Your task to perform on an android device: turn off priority inbox in the gmail app Image 0: 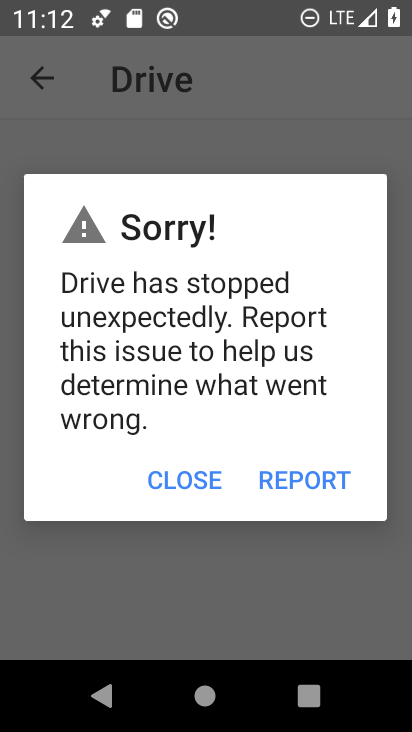
Step 0: press home button
Your task to perform on an android device: turn off priority inbox in the gmail app Image 1: 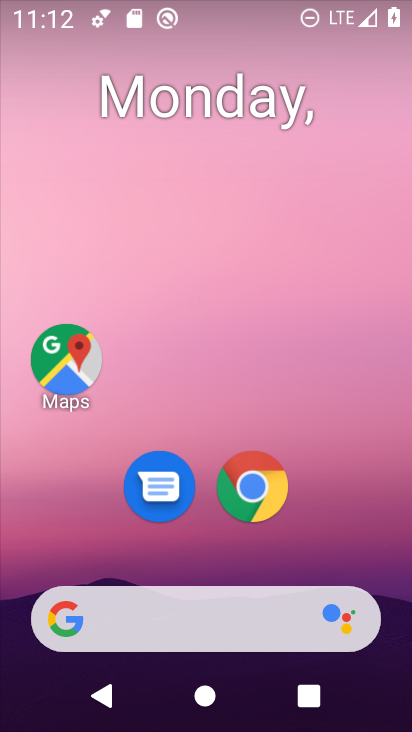
Step 1: drag from (20, 620) to (248, 217)
Your task to perform on an android device: turn off priority inbox in the gmail app Image 2: 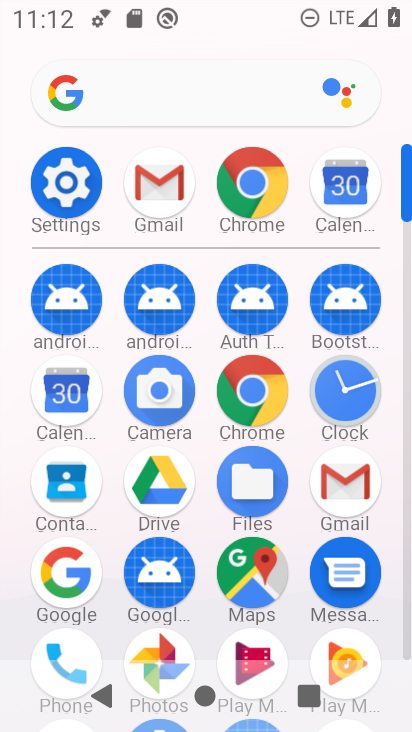
Step 2: click (136, 183)
Your task to perform on an android device: turn off priority inbox in the gmail app Image 3: 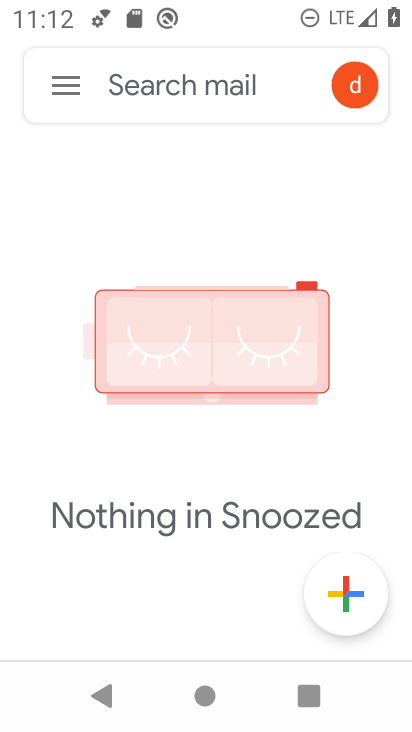
Step 3: click (77, 92)
Your task to perform on an android device: turn off priority inbox in the gmail app Image 4: 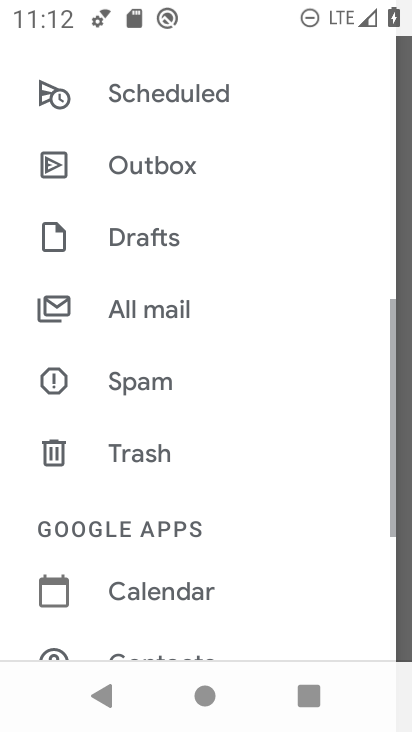
Step 4: drag from (92, 602) to (280, 135)
Your task to perform on an android device: turn off priority inbox in the gmail app Image 5: 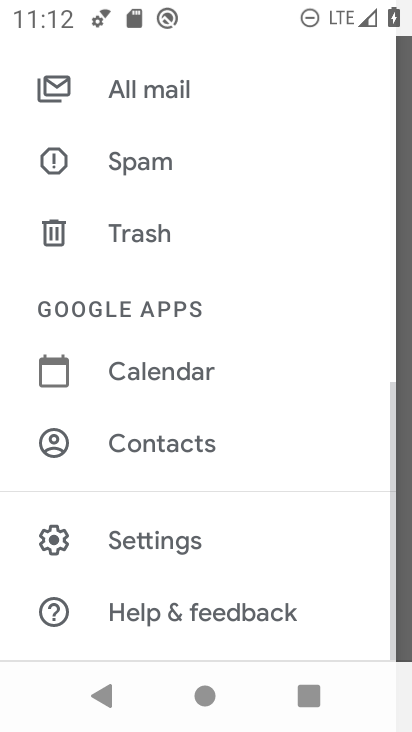
Step 5: click (136, 546)
Your task to perform on an android device: turn off priority inbox in the gmail app Image 6: 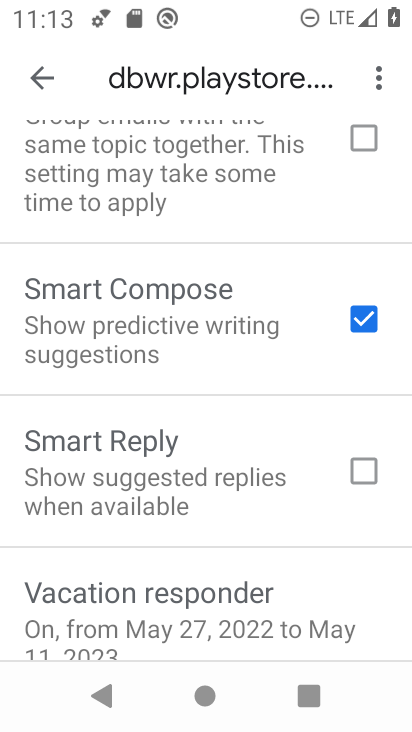
Step 6: drag from (22, 623) to (279, 250)
Your task to perform on an android device: turn off priority inbox in the gmail app Image 7: 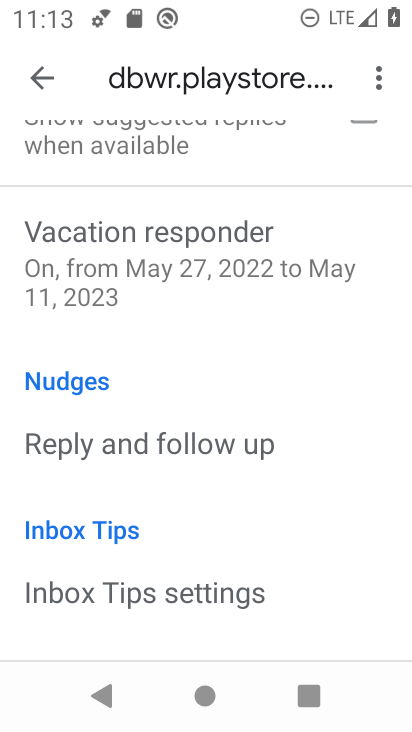
Step 7: drag from (151, 235) to (58, 574)
Your task to perform on an android device: turn off priority inbox in the gmail app Image 8: 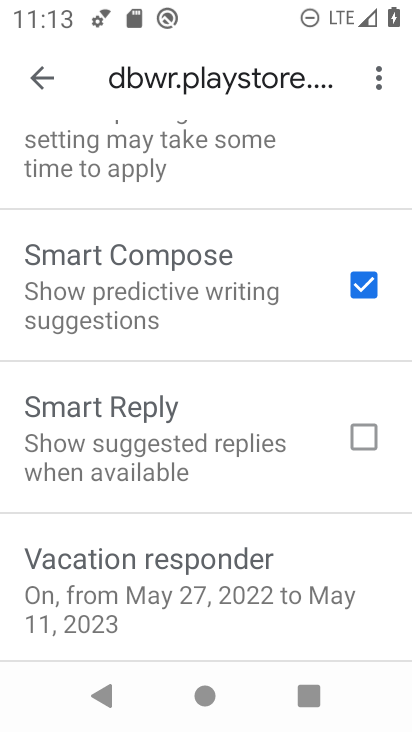
Step 8: drag from (217, 194) to (54, 694)
Your task to perform on an android device: turn off priority inbox in the gmail app Image 9: 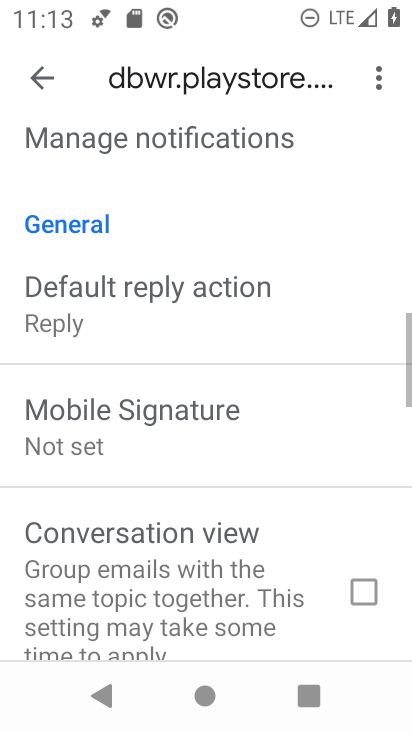
Step 9: drag from (165, 139) to (58, 577)
Your task to perform on an android device: turn off priority inbox in the gmail app Image 10: 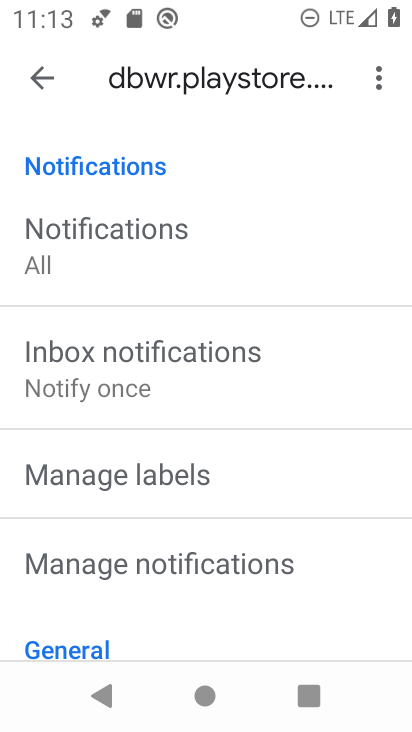
Step 10: drag from (140, 138) to (39, 583)
Your task to perform on an android device: turn off priority inbox in the gmail app Image 11: 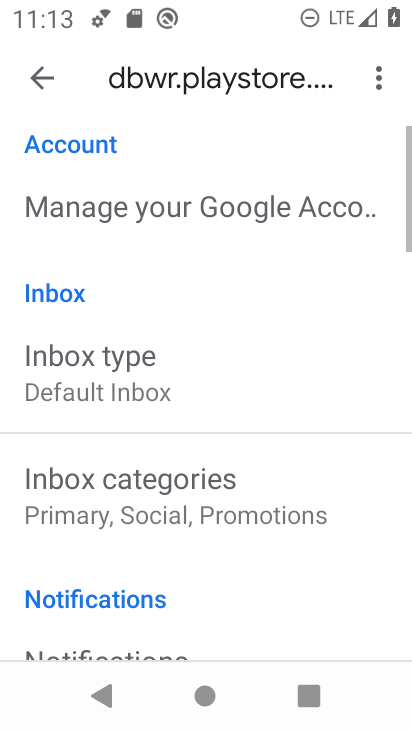
Step 11: drag from (198, 143) to (32, 600)
Your task to perform on an android device: turn off priority inbox in the gmail app Image 12: 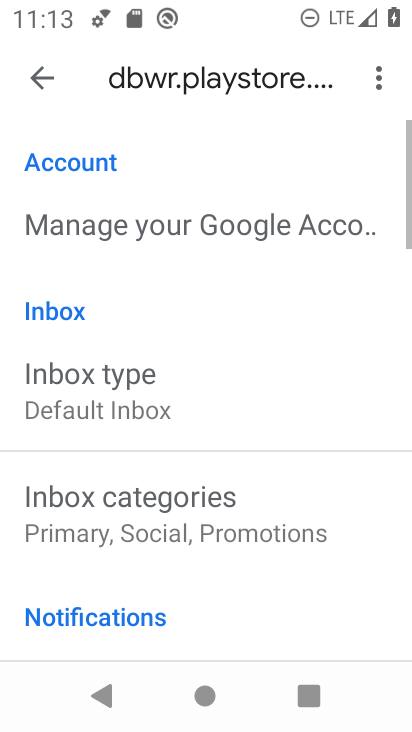
Step 12: drag from (141, 201) to (9, 626)
Your task to perform on an android device: turn off priority inbox in the gmail app Image 13: 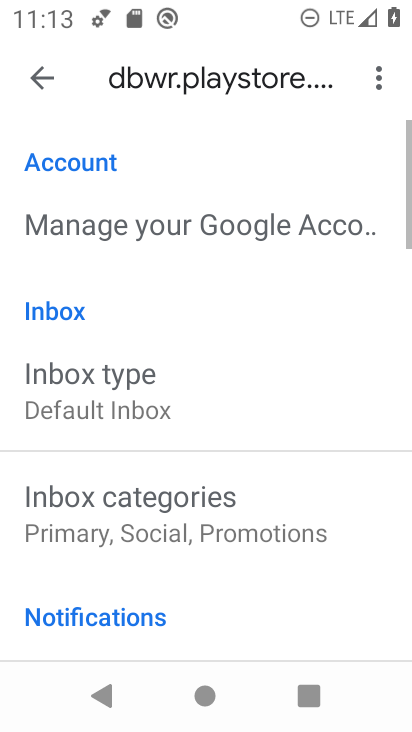
Step 13: click (112, 392)
Your task to perform on an android device: turn off priority inbox in the gmail app Image 14: 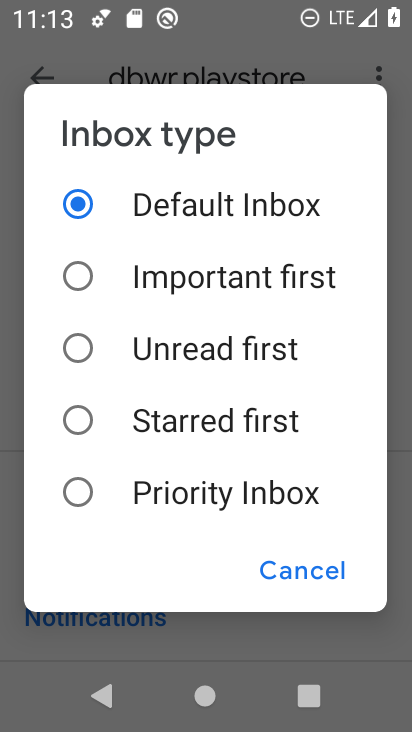
Step 14: task complete